Your task to perform on an android device: delete location history Image 0: 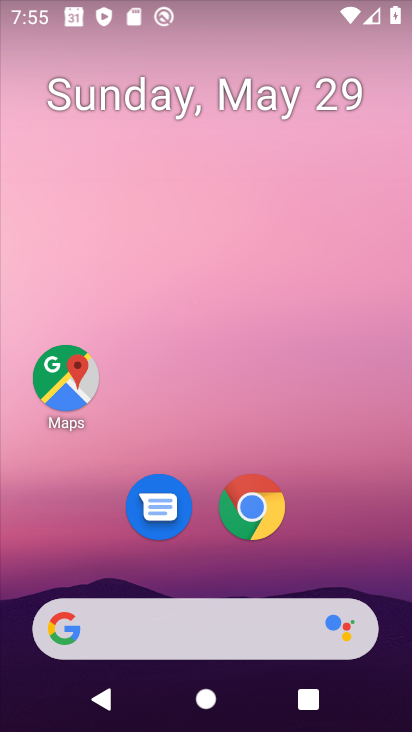
Step 0: drag from (344, 500) to (303, 108)
Your task to perform on an android device: delete location history Image 1: 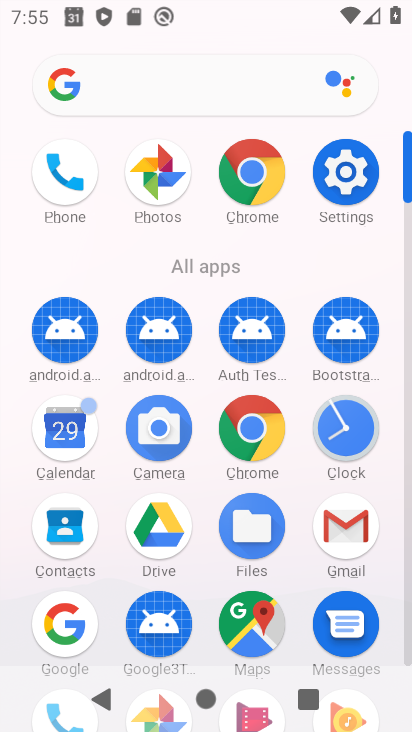
Step 1: click (281, 621)
Your task to perform on an android device: delete location history Image 2: 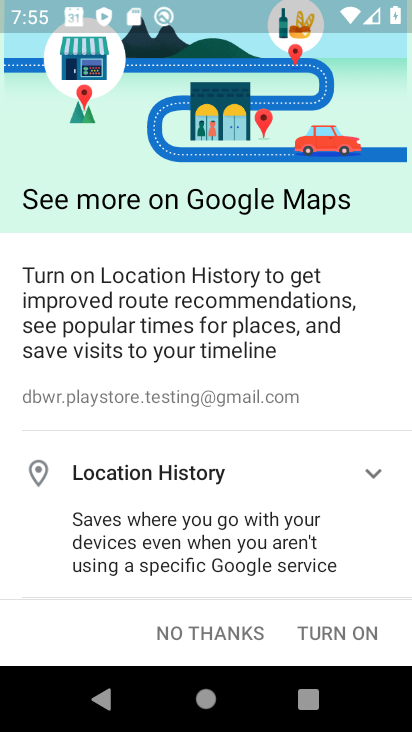
Step 2: click (198, 635)
Your task to perform on an android device: delete location history Image 3: 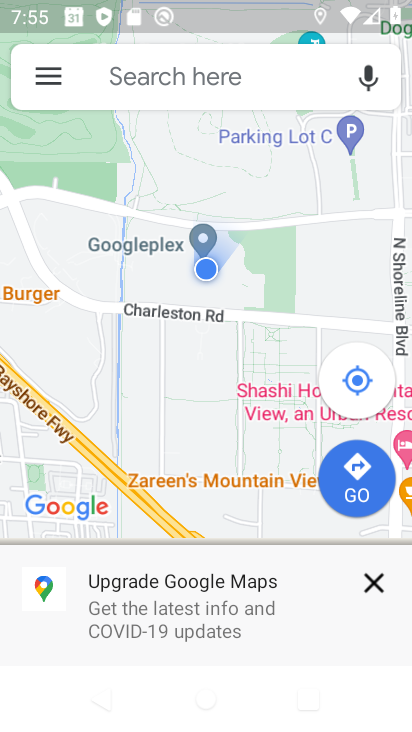
Step 3: click (48, 66)
Your task to perform on an android device: delete location history Image 4: 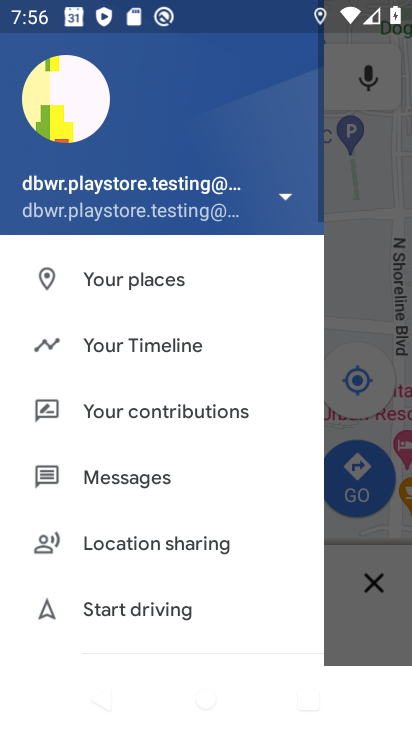
Step 4: drag from (114, 576) to (229, 150)
Your task to perform on an android device: delete location history Image 5: 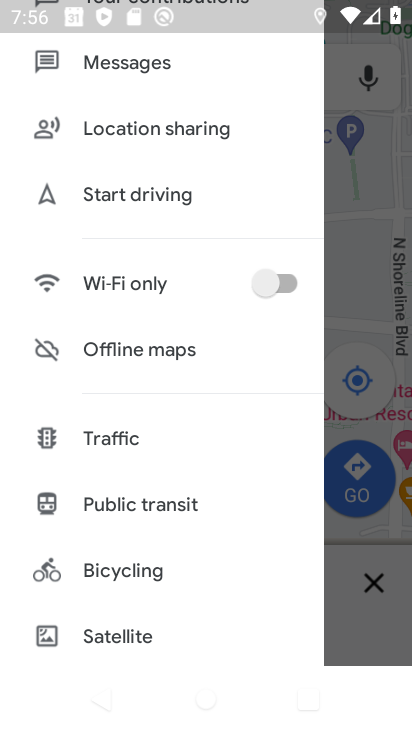
Step 5: drag from (145, 590) to (223, 159)
Your task to perform on an android device: delete location history Image 6: 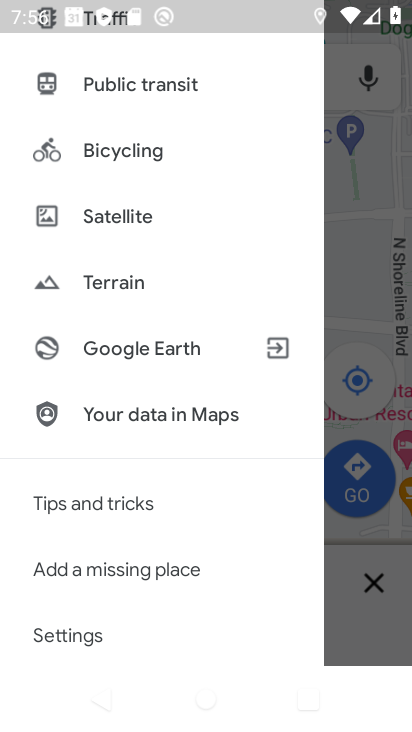
Step 6: click (94, 637)
Your task to perform on an android device: delete location history Image 7: 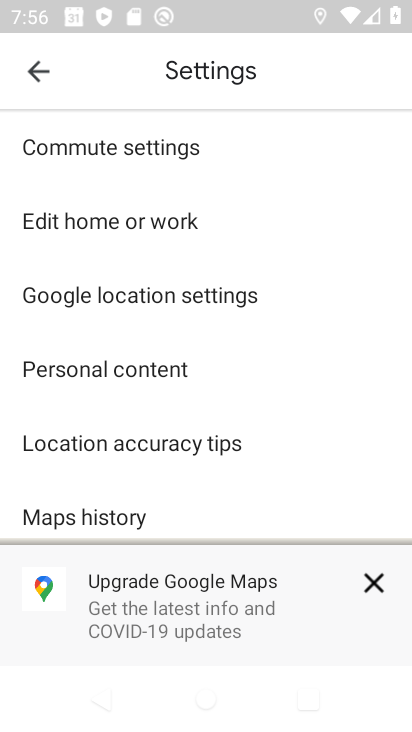
Step 7: drag from (168, 437) to (214, 126)
Your task to perform on an android device: delete location history Image 8: 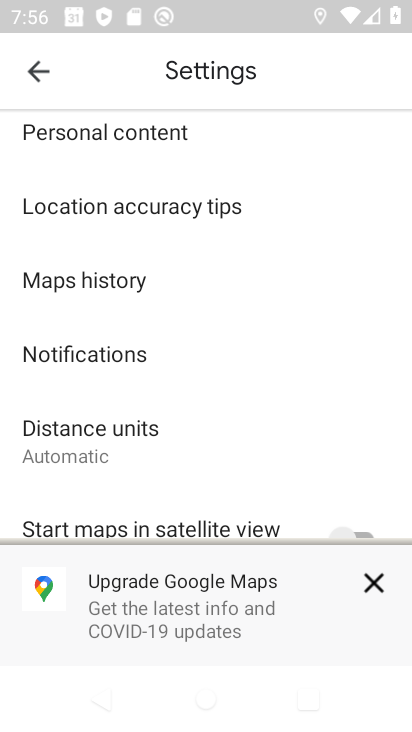
Step 8: click (113, 289)
Your task to perform on an android device: delete location history Image 9: 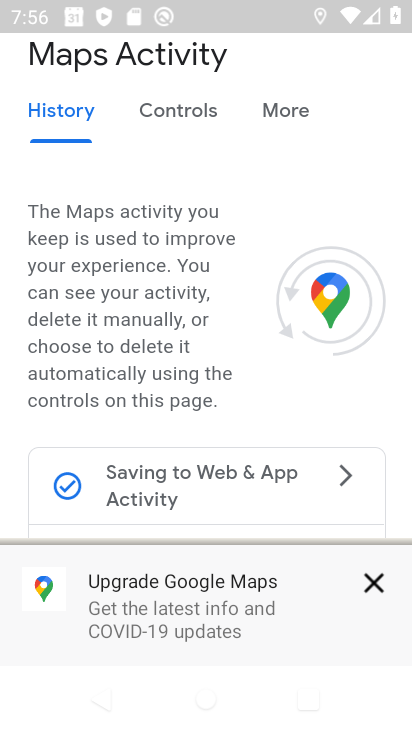
Step 9: drag from (187, 354) to (244, 26)
Your task to perform on an android device: delete location history Image 10: 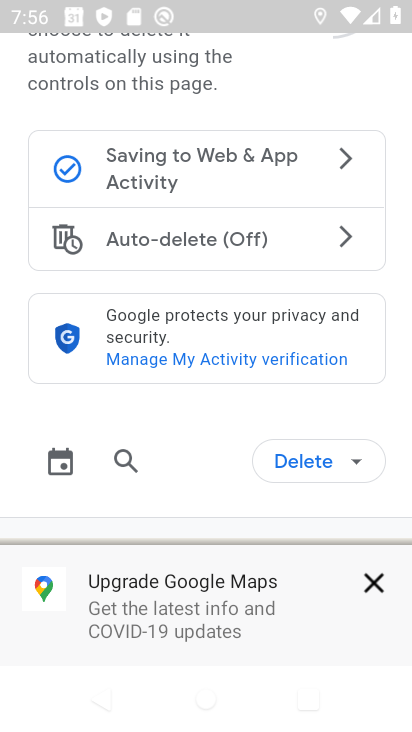
Step 10: drag from (175, 418) to (279, 69)
Your task to perform on an android device: delete location history Image 11: 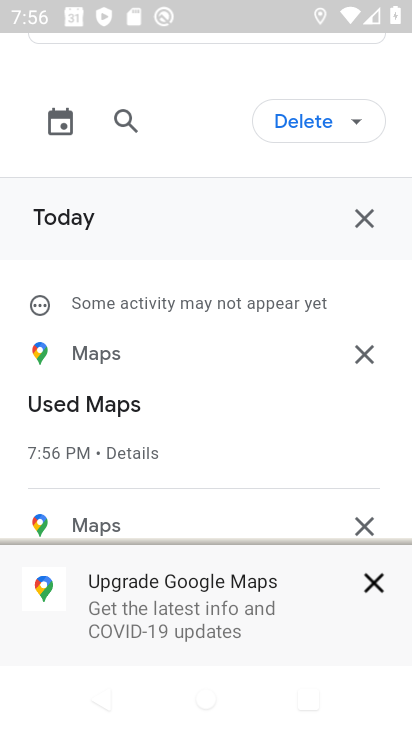
Step 11: click (337, 128)
Your task to perform on an android device: delete location history Image 12: 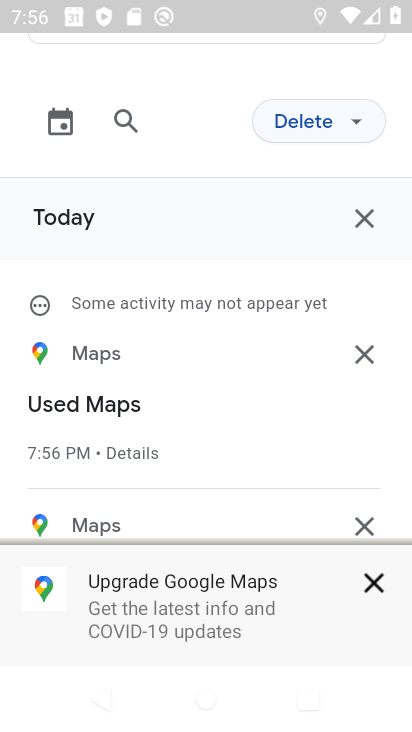
Step 12: click (337, 128)
Your task to perform on an android device: delete location history Image 13: 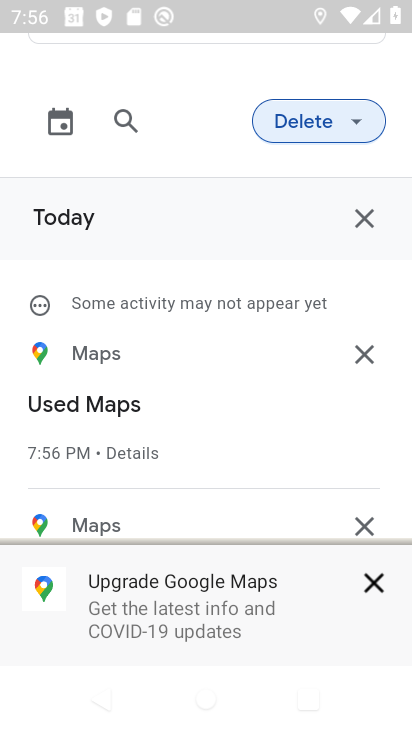
Step 13: click (324, 124)
Your task to perform on an android device: delete location history Image 14: 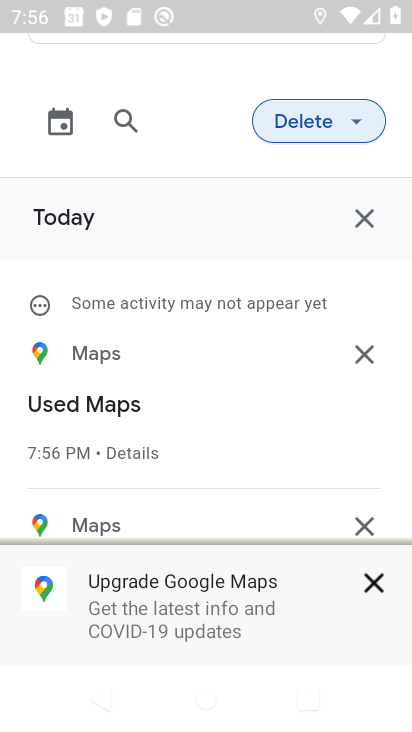
Step 14: click (359, 120)
Your task to perform on an android device: delete location history Image 15: 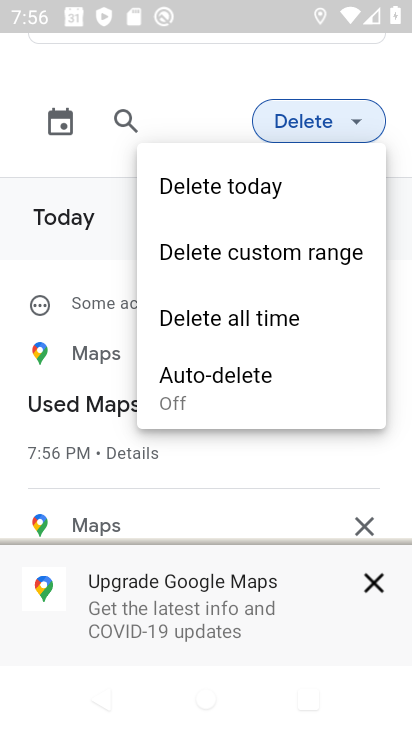
Step 15: click (241, 323)
Your task to perform on an android device: delete location history Image 16: 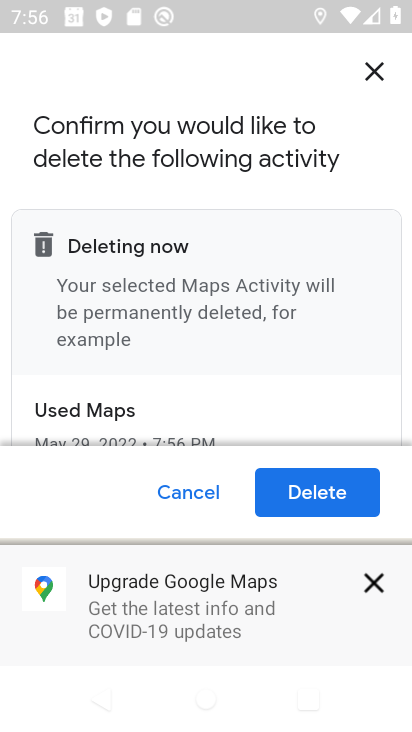
Step 16: click (328, 489)
Your task to perform on an android device: delete location history Image 17: 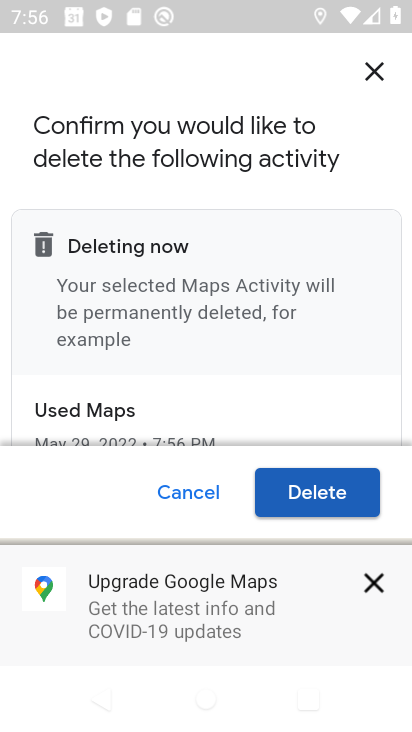
Step 17: click (332, 486)
Your task to perform on an android device: delete location history Image 18: 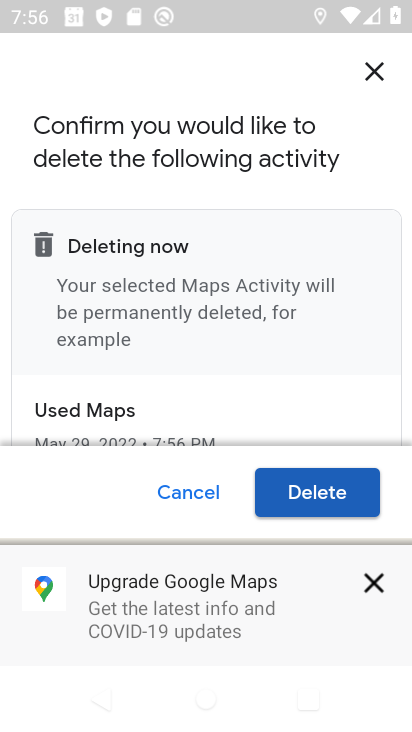
Step 18: click (336, 495)
Your task to perform on an android device: delete location history Image 19: 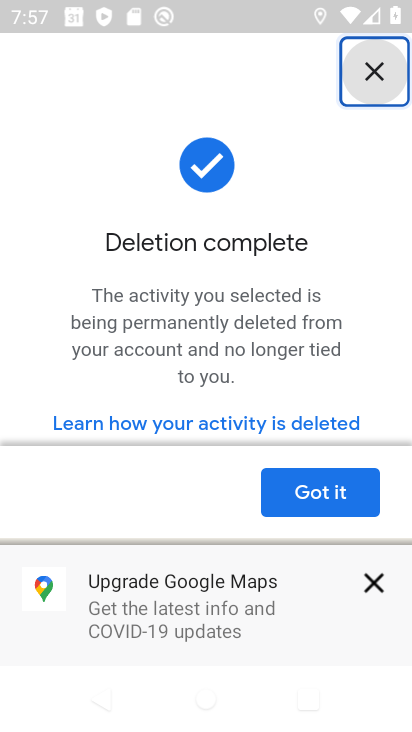
Step 19: task complete